Your task to perform on an android device: check android version Image 0: 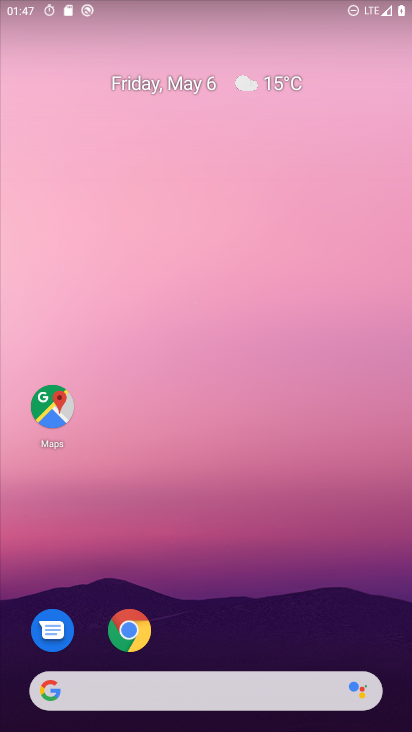
Step 0: drag from (337, 624) to (281, 129)
Your task to perform on an android device: check android version Image 1: 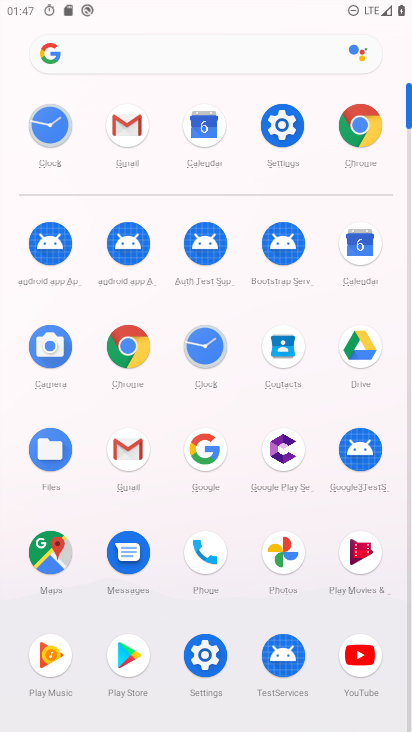
Step 1: click (270, 130)
Your task to perform on an android device: check android version Image 2: 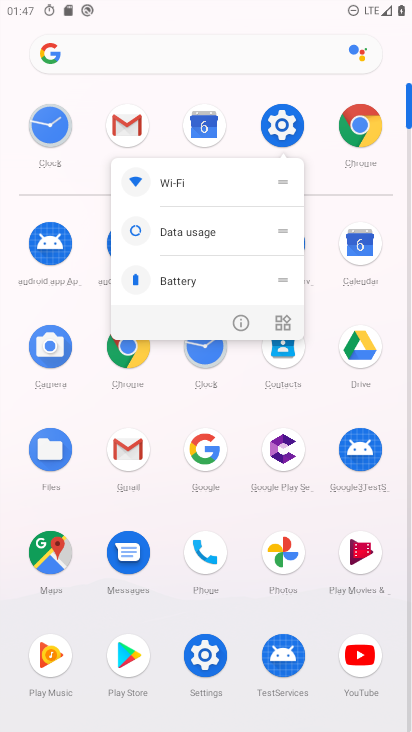
Step 2: click (284, 123)
Your task to perform on an android device: check android version Image 3: 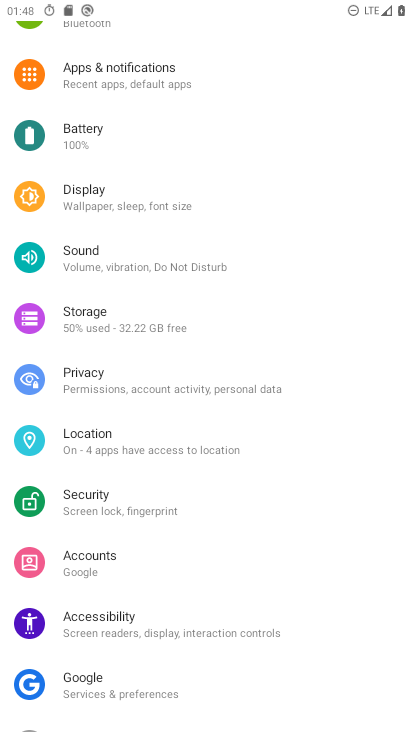
Step 3: drag from (239, 586) to (313, 177)
Your task to perform on an android device: check android version Image 4: 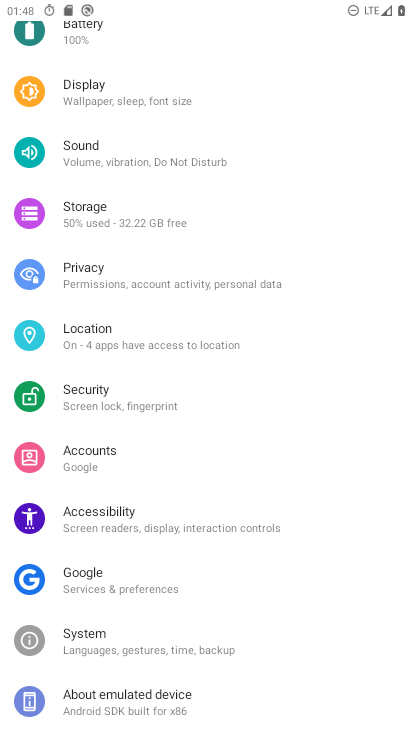
Step 4: click (170, 697)
Your task to perform on an android device: check android version Image 5: 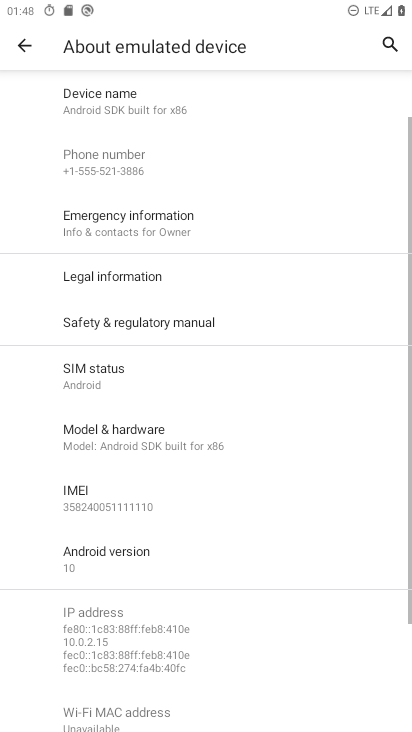
Step 5: click (151, 553)
Your task to perform on an android device: check android version Image 6: 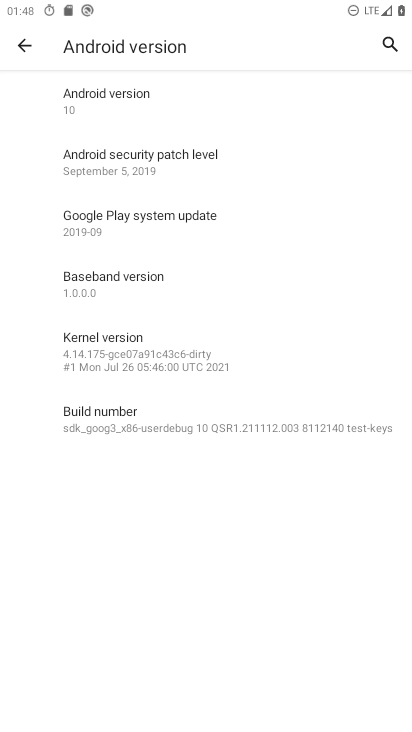
Step 6: click (134, 104)
Your task to perform on an android device: check android version Image 7: 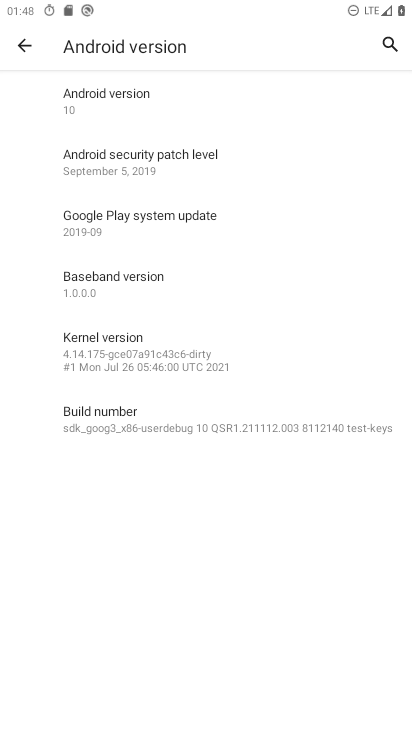
Step 7: click (134, 104)
Your task to perform on an android device: check android version Image 8: 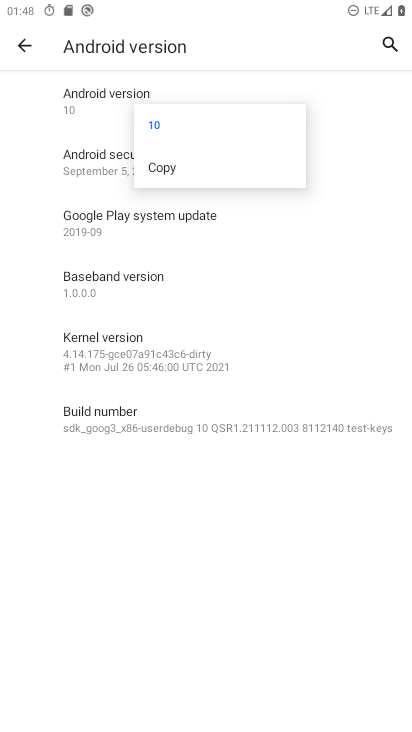
Step 8: click (134, 104)
Your task to perform on an android device: check android version Image 9: 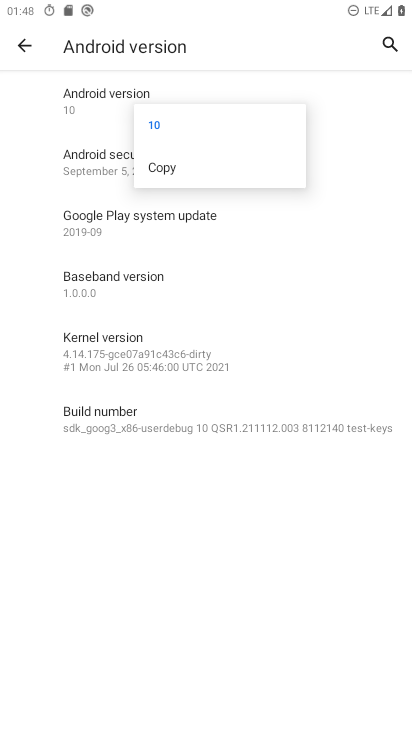
Step 9: click (134, 104)
Your task to perform on an android device: check android version Image 10: 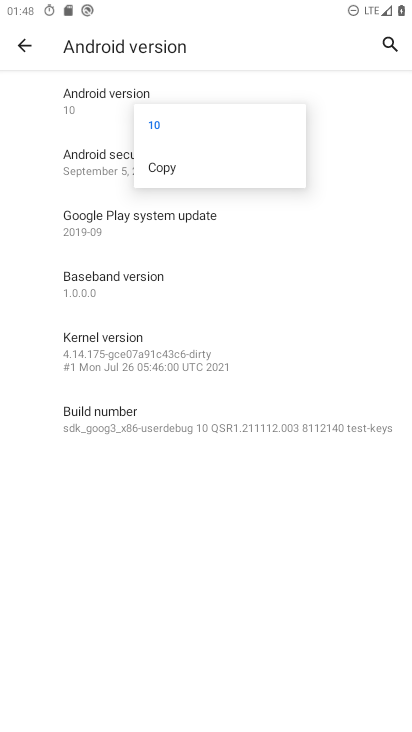
Step 10: click (166, 129)
Your task to perform on an android device: check android version Image 11: 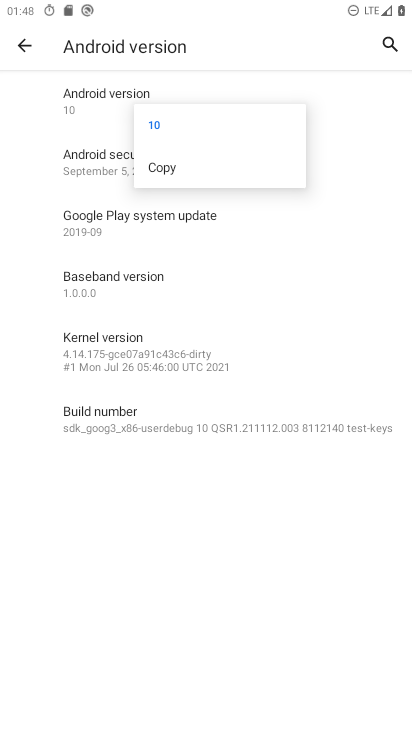
Step 11: click (76, 122)
Your task to perform on an android device: check android version Image 12: 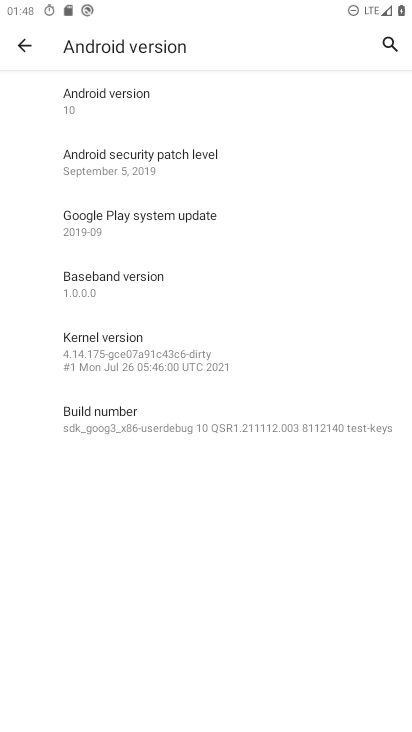
Step 12: task complete